Your task to perform on an android device: Show me popular games on the Play Store Image 0: 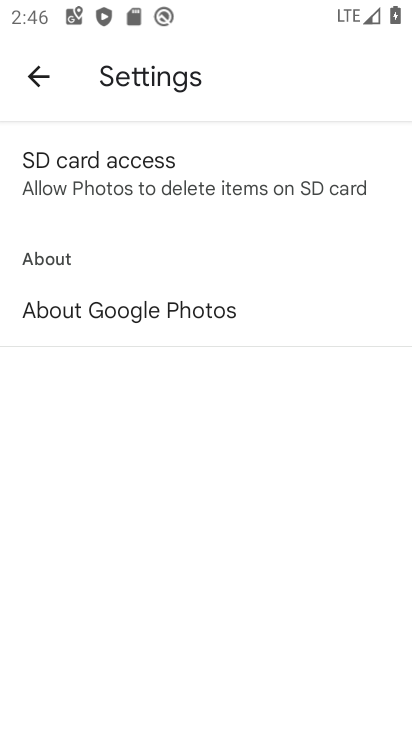
Step 0: press home button
Your task to perform on an android device: Show me popular games on the Play Store Image 1: 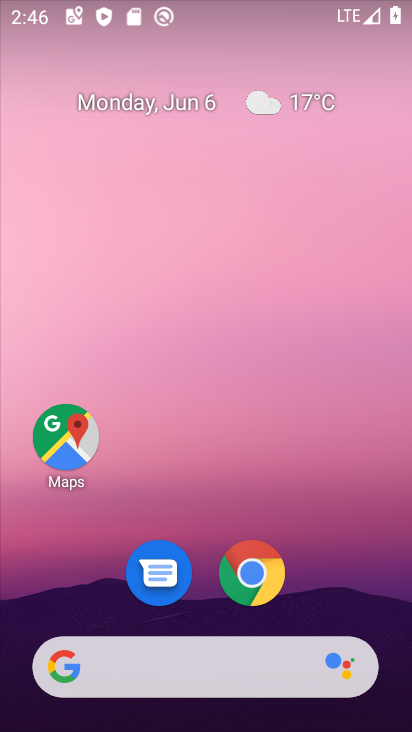
Step 1: drag from (357, 593) to (366, 143)
Your task to perform on an android device: Show me popular games on the Play Store Image 2: 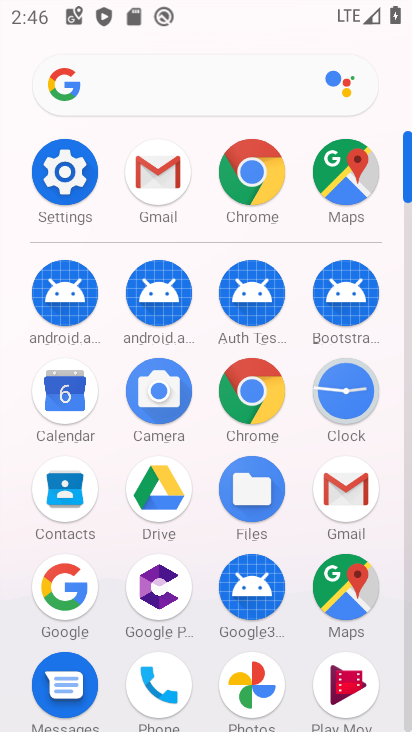
Step 2: drag from (389, 558) to (387, 371)
Your task to perform on an android device: Show me popular games on the Play Store Image 3: 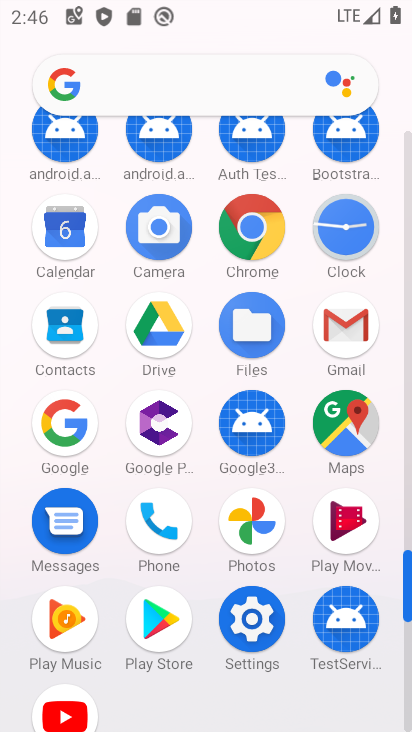
Step 3: click (154, 621)
Your task to perform on an android device: Show me popular games on the Play Store Image 4: 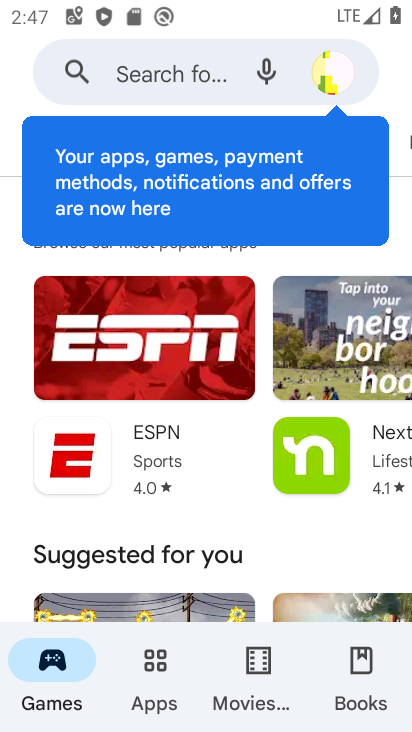
Step 4: task complete